Your task to perform on an android device: Go to Maps Image 0: 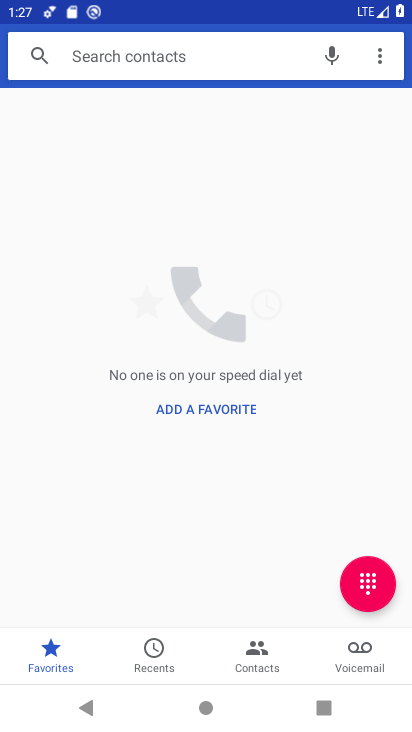
Step 0: press home button
Your task to perform on an android device: Go to Maps Image 1: 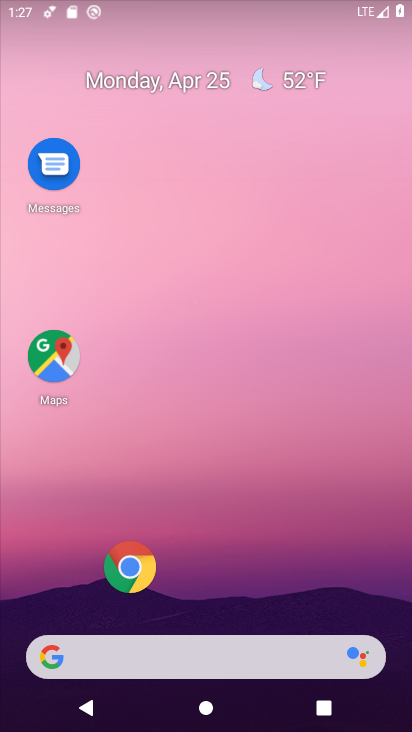
Step 1: drag from (236, 633) to (247, 226)
Your task to perform on an android device: Go to Maps Image 2: 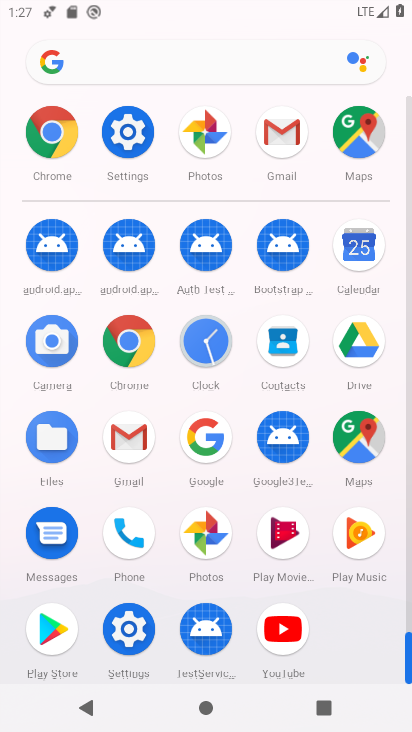
Step 2: click (365, 449)
Your task to perform on an android device: Go to Maps Image 3: 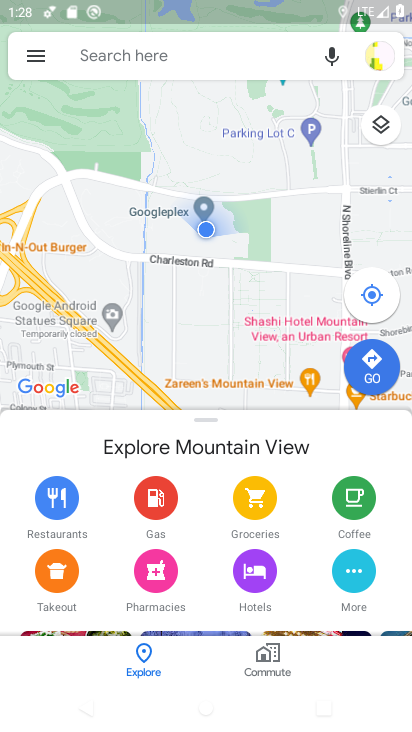
Step 3: task complete